Your task to perform on an android device: delete location history Image 0: 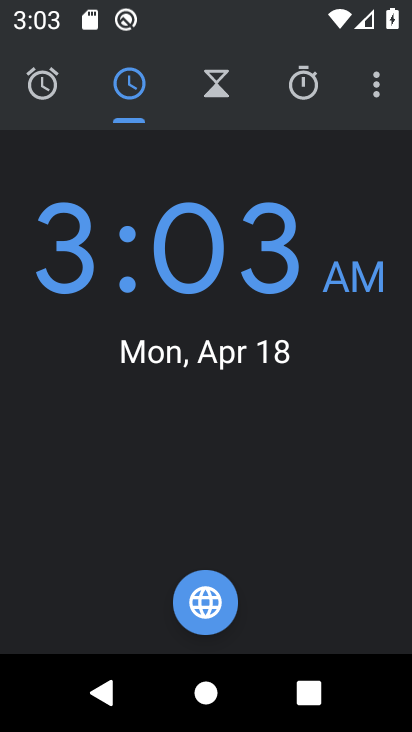
Step 0: press home button
Your task to perform on an android device: delete location history Image 1: 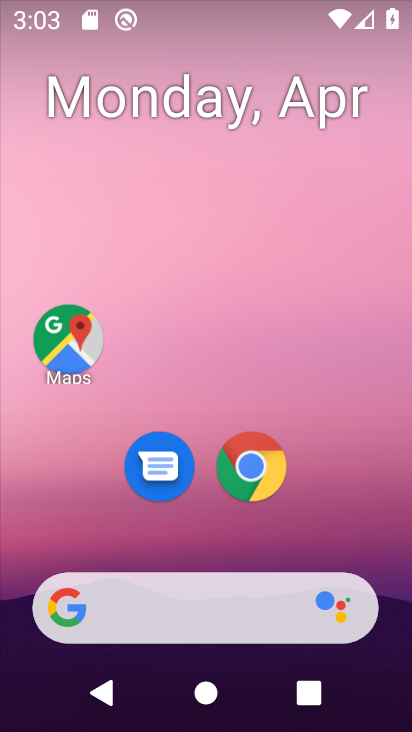
Step 1: drag from (323, 521) to (323, 160)
Your task to perform on an android device: delete location history Image 2: 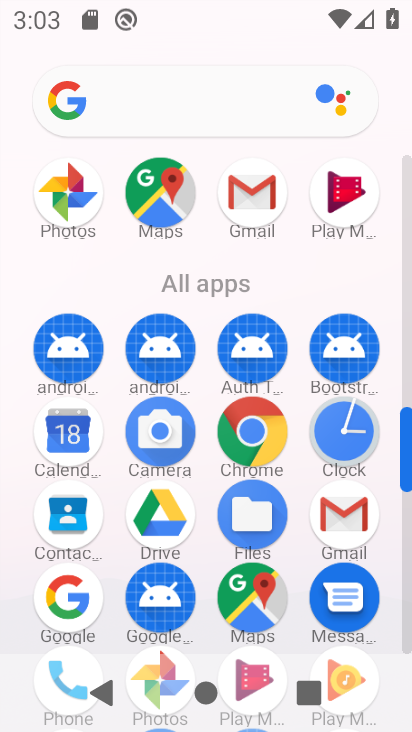
Step 2: drag from (297, 630) to (309, 154)
Your task to perform on an android device: delete location history Image 3: 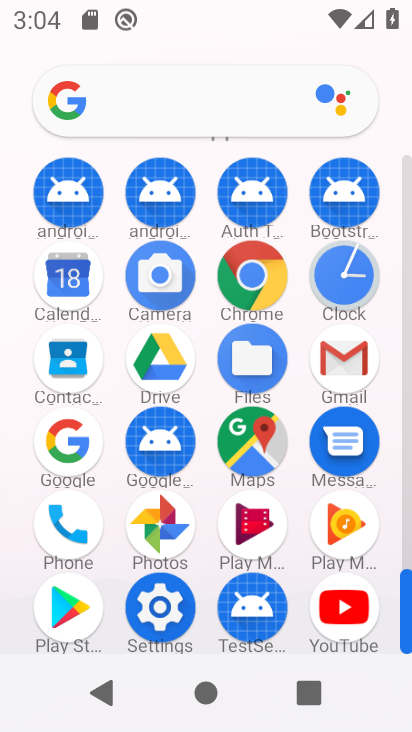
Step 3: click (159, 631)
Your task to perform on an android device: delete location history Image 4: 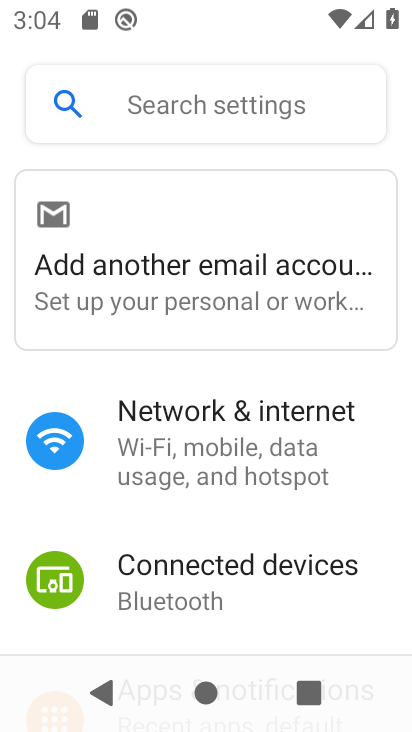
Step 4: drag from (282, 592) to (315, 251)
Your task to perform on an android device: delete location history Image 5: 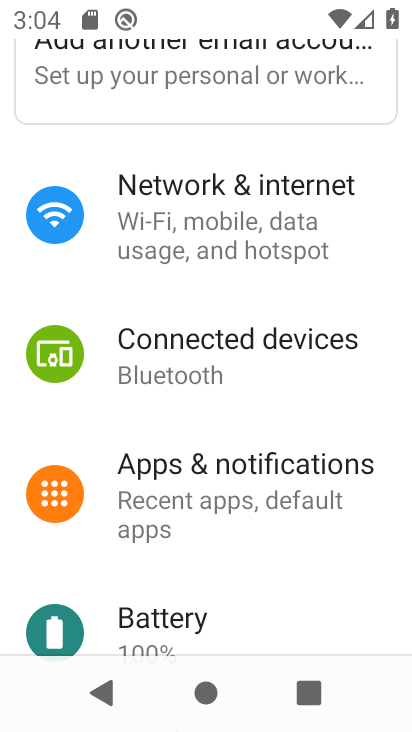
Step 5: drag from (278, 600) to (297, 208)
Your task to perform on an android device: delete location history Image 6: 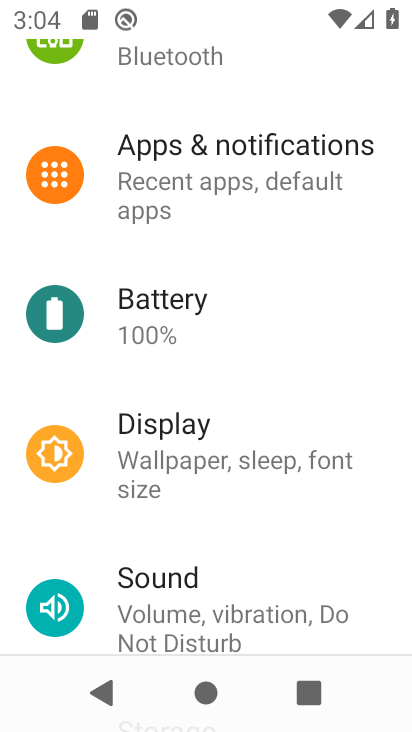
Step 6: drag from (273, 577) to (290, 209)
Your task to perform on an android device: delete location history Image 7: 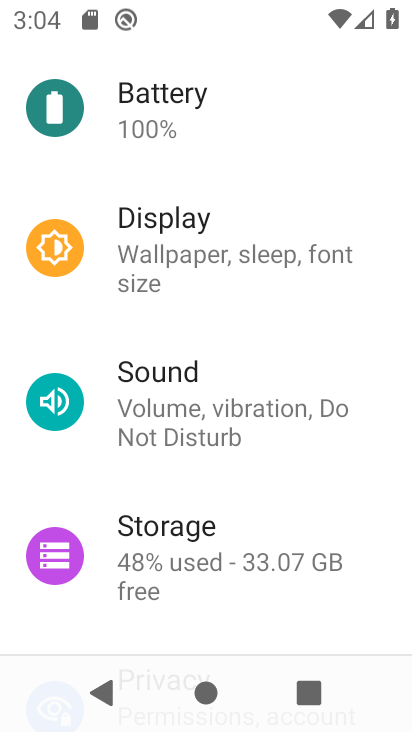
Step 7: drag from (259, 604) to (289, 174)
Your task to perform on an android device: delete location history Image 8: 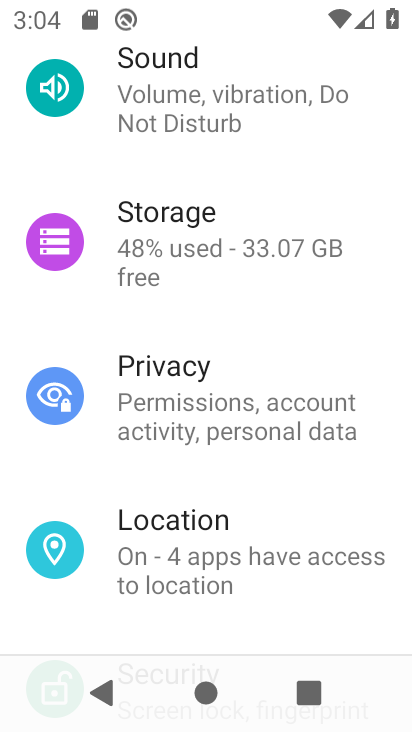
Step 8: click (262, 622)
Your task to perform on an android device: delete location history Image 9: 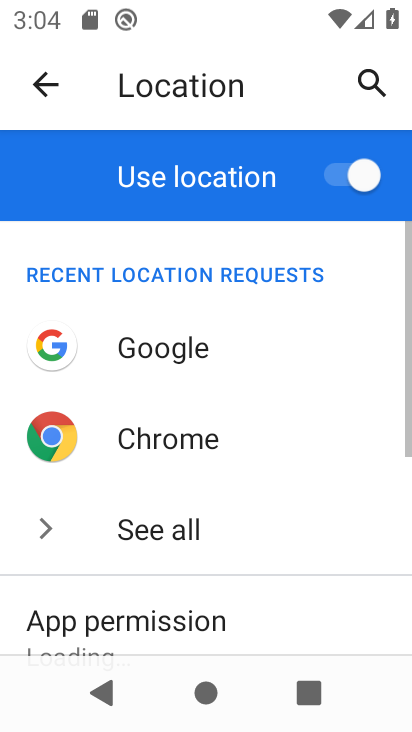
Step 9: drag from (258, 553) to (282, 208)
Your task to perform on an android device: delete location history Image 10: 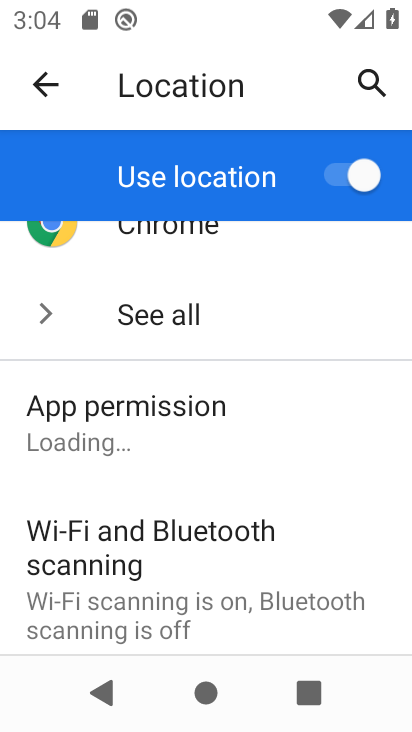
Step 10: drag from (205, 604) to (234, 219)
Your task to perform on an android device: delete location history Image 11: 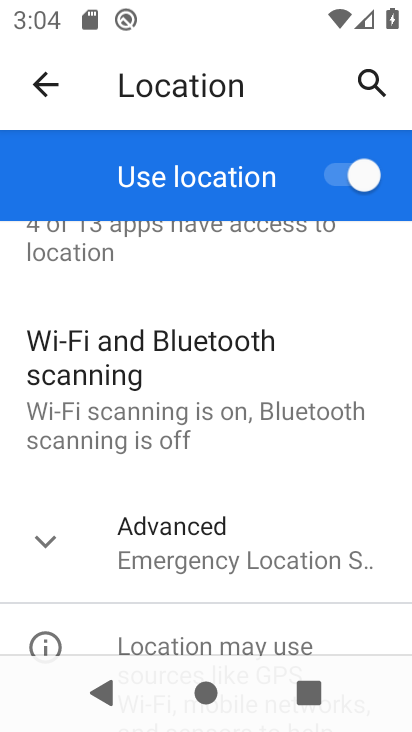
Step 11: click (49, 535)
Your task to perform on an android device: delete location history Image 12: 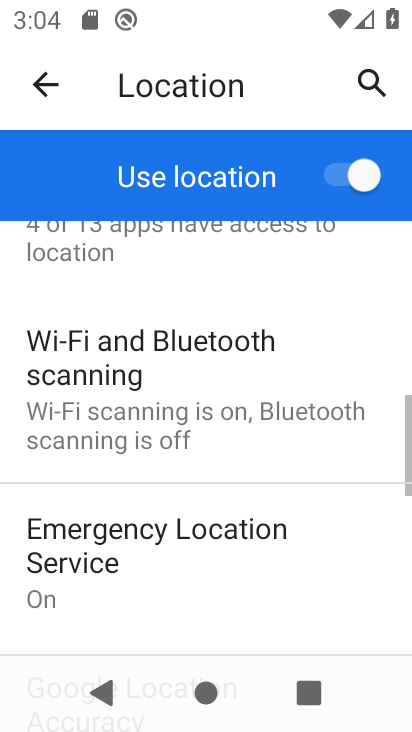
Step 12: drag from (154, 590) to (208, 193)
Your task to perform on an android device: delete location history Image 13: 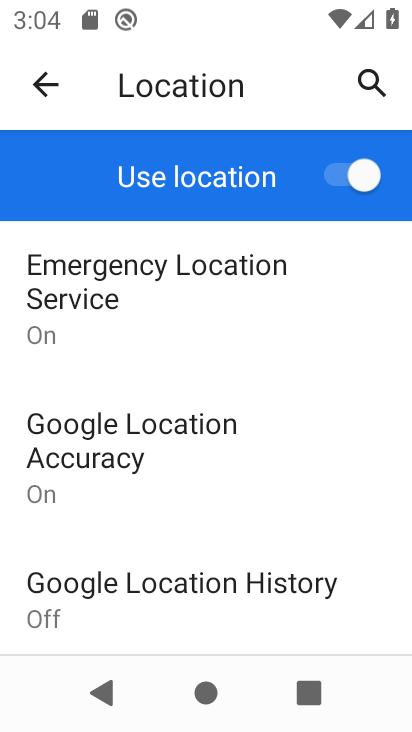
Step 13: click (224, 602)
Your task to perform on an android device: delete location history Image 14: 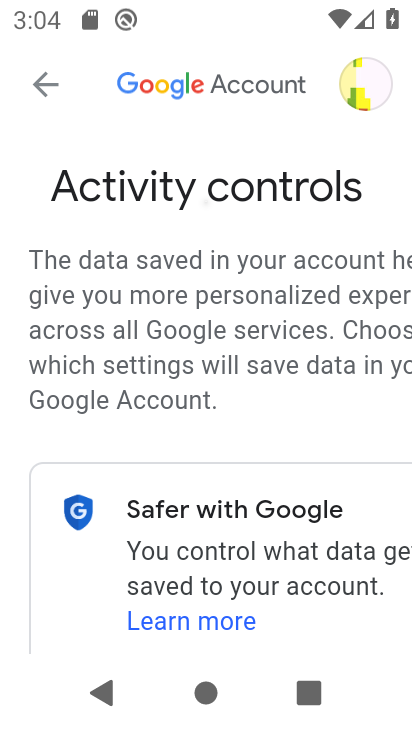
Step 14: drag from (246, 570) to (244, 317)
Your task to perform on an android device: delete location history Image 15: 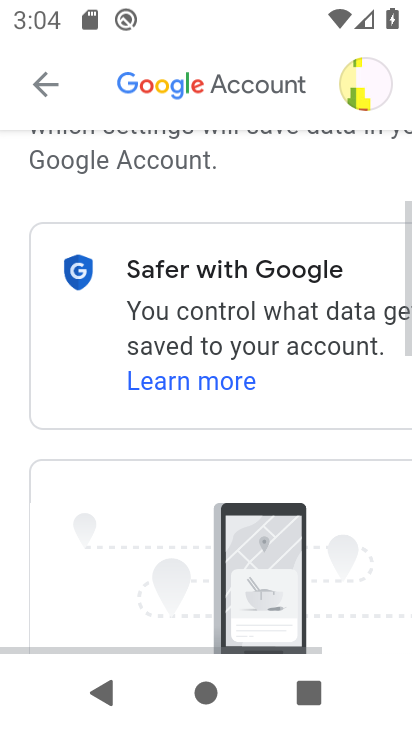
Step 15: drag from (286, 584) to (294, 247)
Your task to perform on an android device: delete location history Image 16: 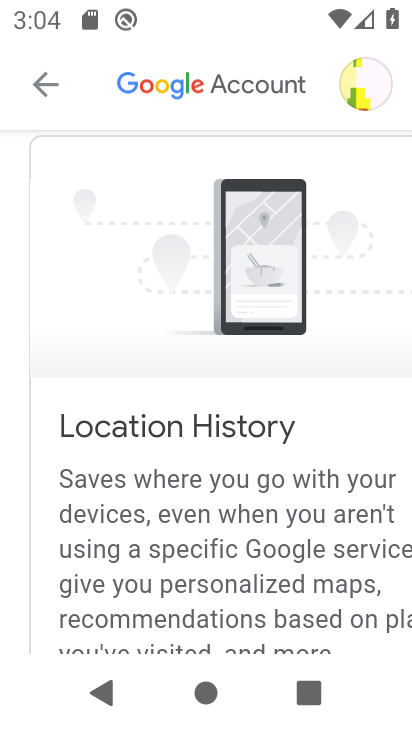
Step 16: drag from (224, 549) to (250, 167)
Your task to perform on an android device: delete location history Image 17: 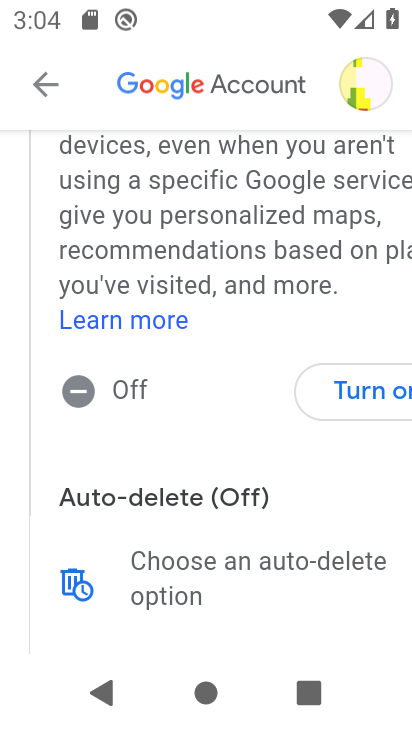
Step 17: drag from (244, 619) to (284, 412)
Your task to perform on an android device: delete location history Image 18: 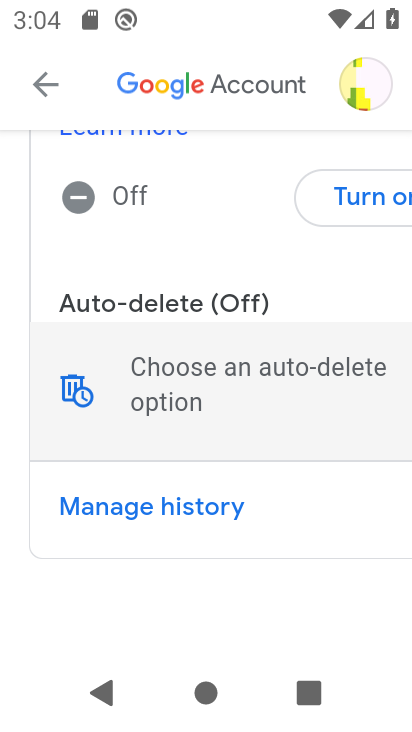
Step 18: drag from (324, 471) to (97, 486)
Your task to perform on an android device: delete location history Image 19: 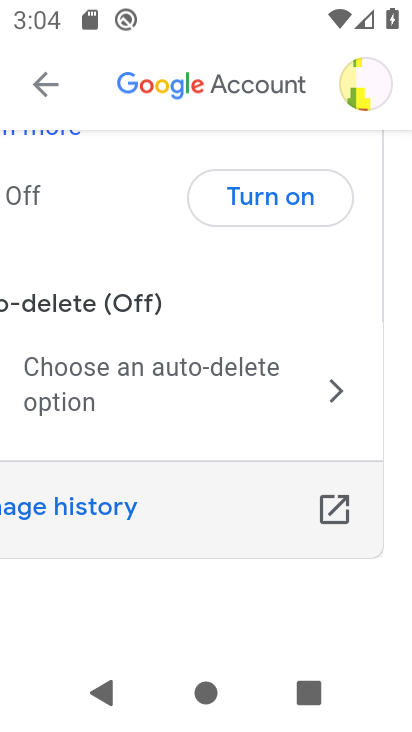
Step 19: click (207, 399)
Your task to perform on an android device: delete location history Image 20: 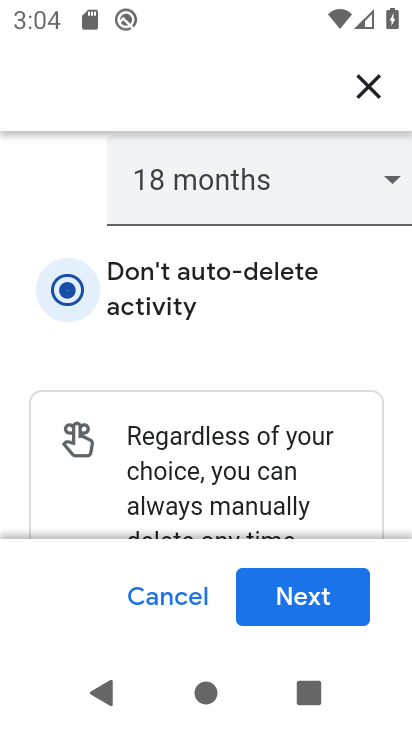
Step 20: click (297, 607)
Your task to perform on an android device: delete location history Image 21: 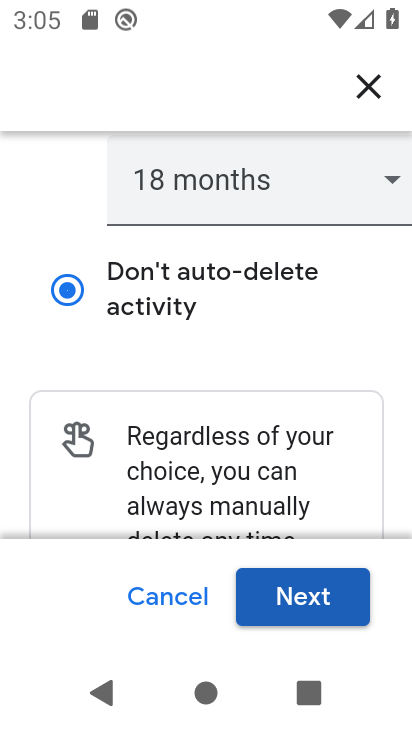
Step 21: click (304, 598)
Your task to perform on an android device: delete location history Image 22: 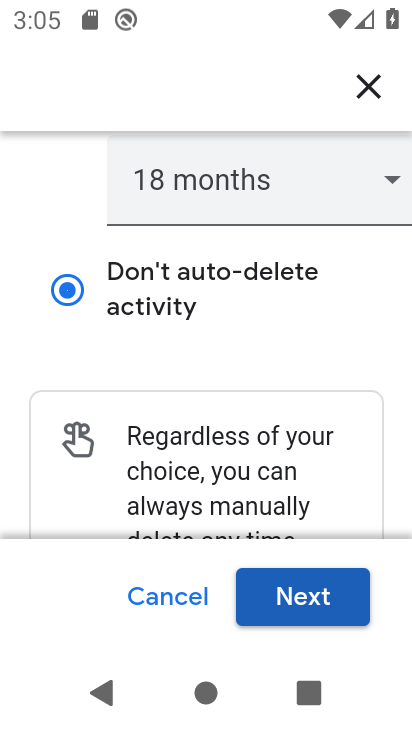
Step 22: click (326, 617)
Your task to perform on an android device: delete location history Image 23: 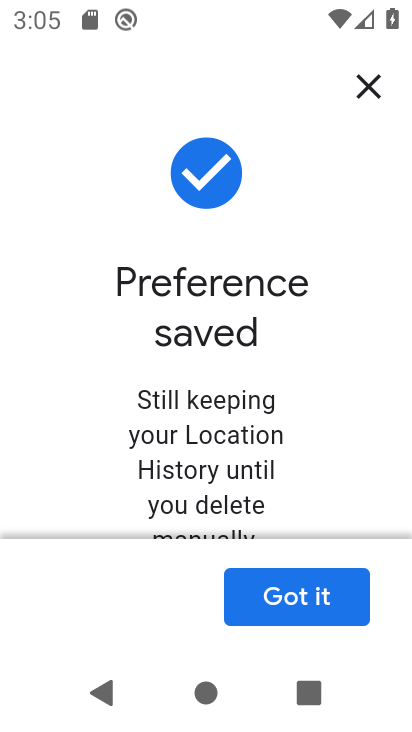
Step 23: click (284, 612)
Your task to perform on an android device: delete location history Image 24: 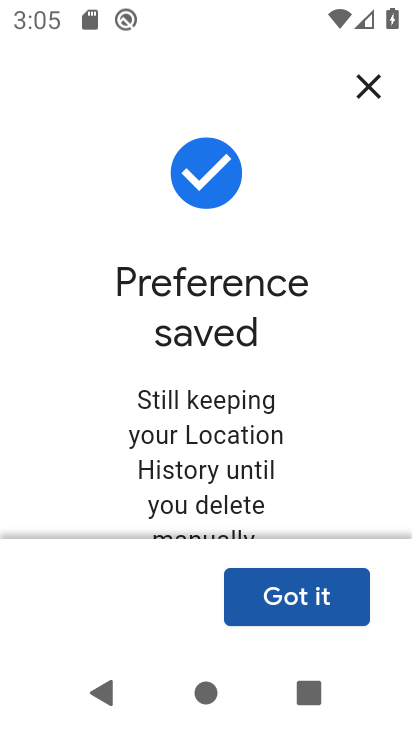
Step 24: task complete